Your task to perform on an android device: turn on the 24-hour format for clock Image 0: 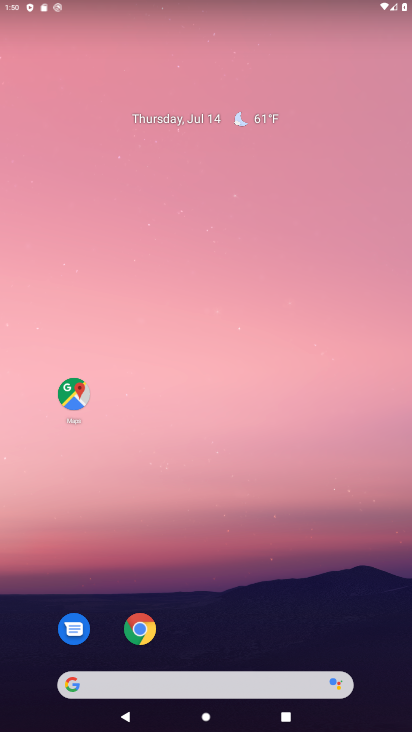
Step 0: drag from (301, 627) to (310, 12)
Your task to perform on an android device: turn on the 24-hour format for clock Image 1: 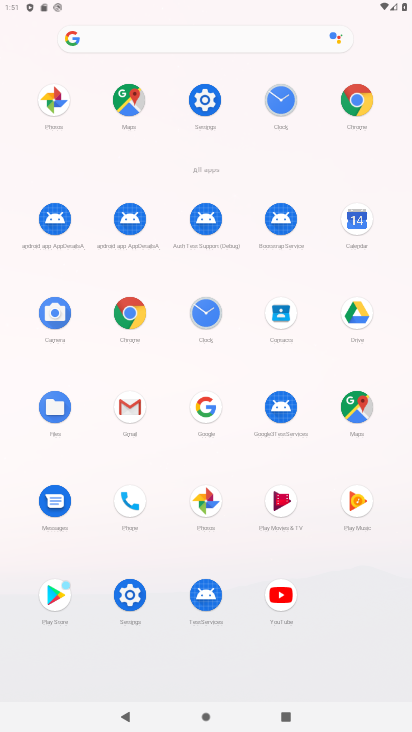
Step 1: click (212, 316)
Your task to perform on an android device: turn on the 24-hour format for clock Image 2: 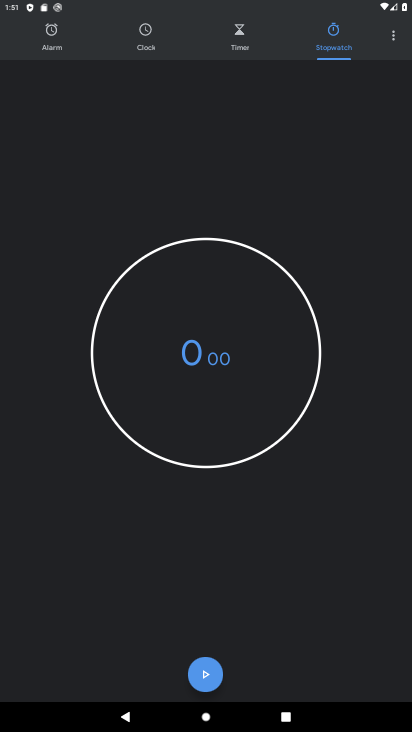
Step 2: click (388, 54)
Your task to perform on an android device: turn on the 24-hour format for clock Image 3: 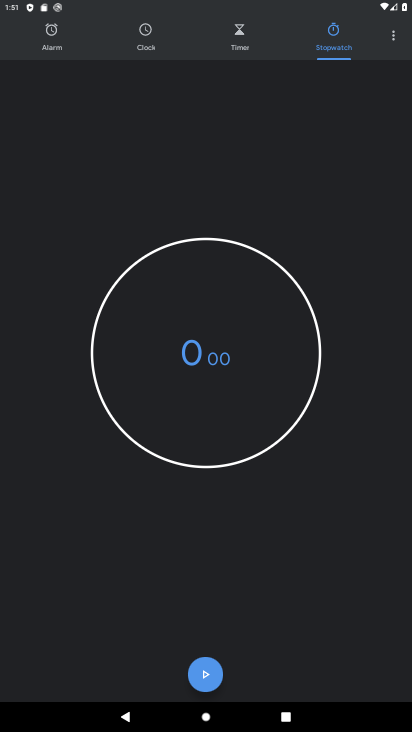
Step 3: click (393, 44)
Your task to perform on an android device: turn on the 24-hour format for clock Image 4: 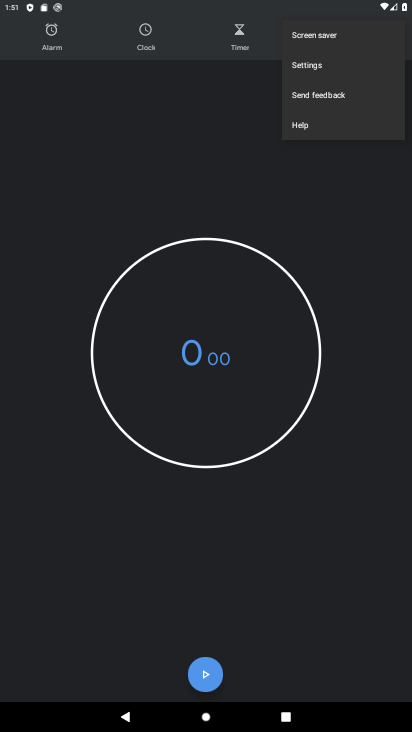
Step 4: click (305, 68)
Your task to perform on an android device: turn on the 24-hour format for clock Image 5: 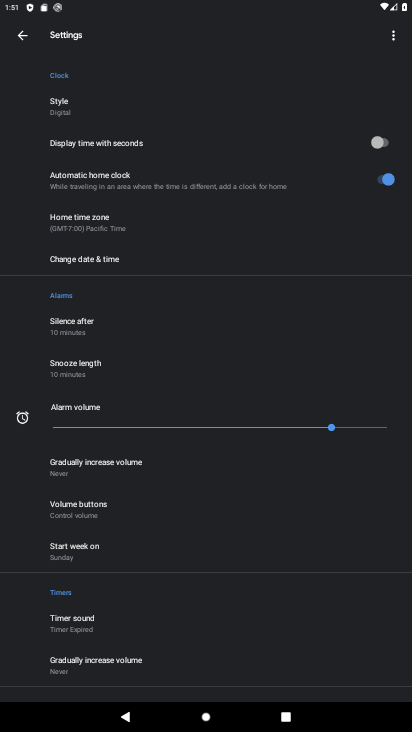
Step 5: click (89, 268)
Your task to perform on an android device: turn on the 24-hour format for clock Image 6: 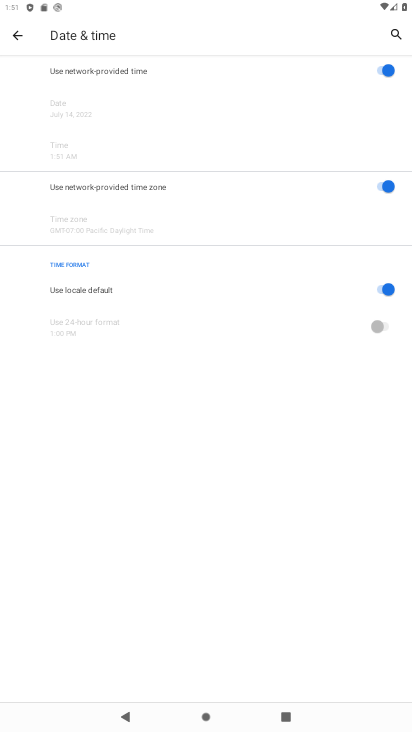
Step 6: click (387, 287)
Your task to perform on an android device: turn on the 24-hour format for clock Image 7: 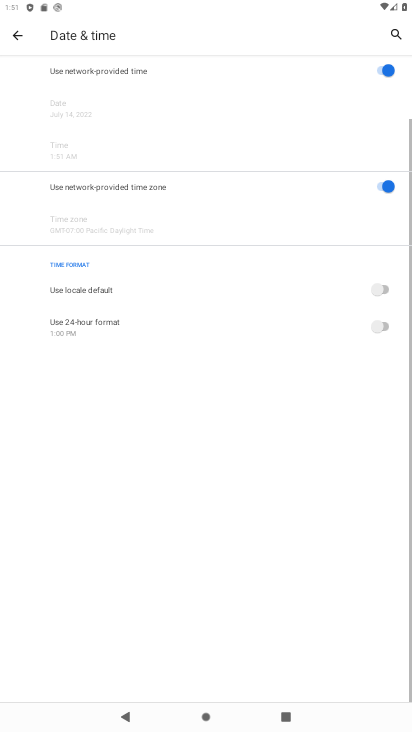
Step 7: click (378, 329)
Your task to perform on an android device: turn on the 24-hour format for clock Image 8: 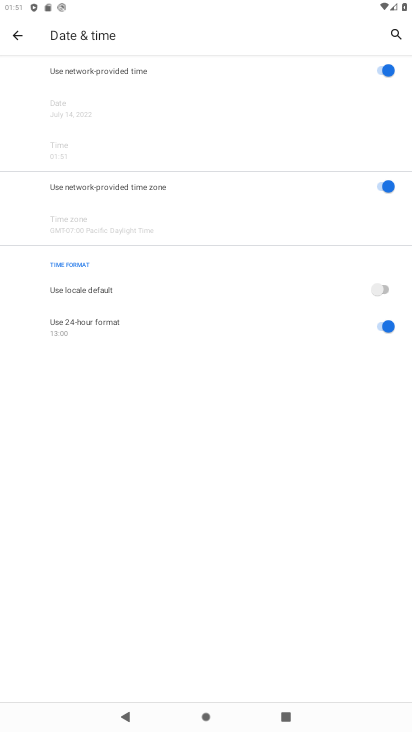
Step 8: task complete